Your task to perform on an android device: What's the weather today? Image 0: 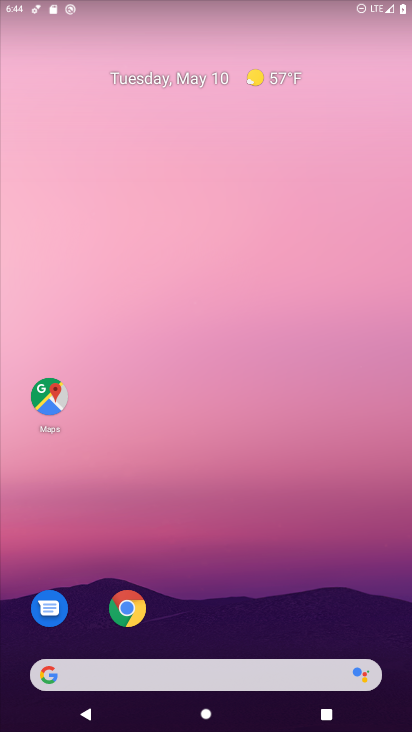
Step 0: click (137, 682)
Your task to perform on an android device: What's the weather today? Image 1: 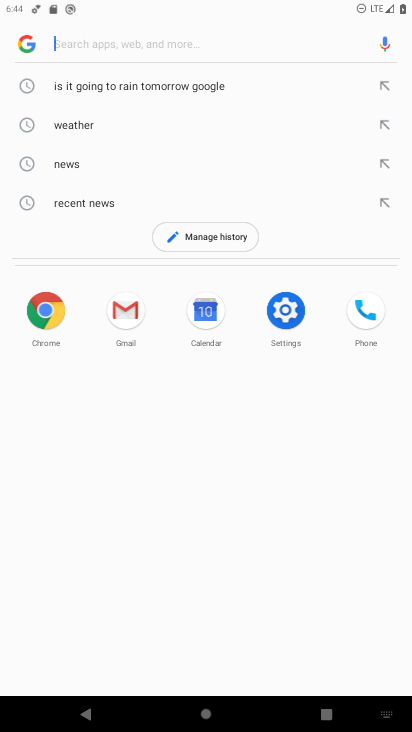
Step 1: click (91, 139)
Your task to perform on an android device: What's the weather today? Image 2: 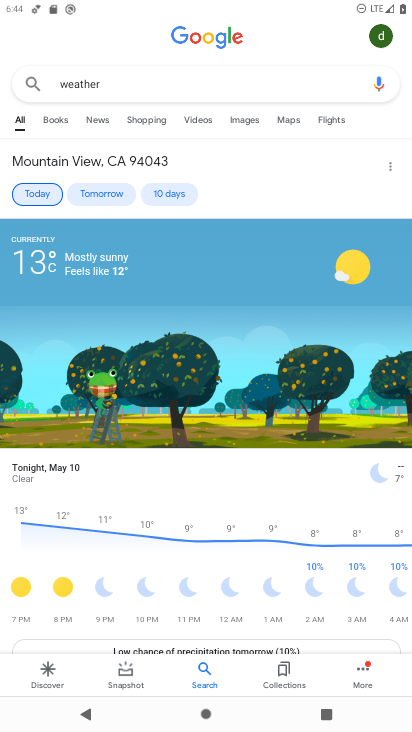
Step 2: task complete